Your task to perform on an android device: change the clock display to show seconds Image 0: 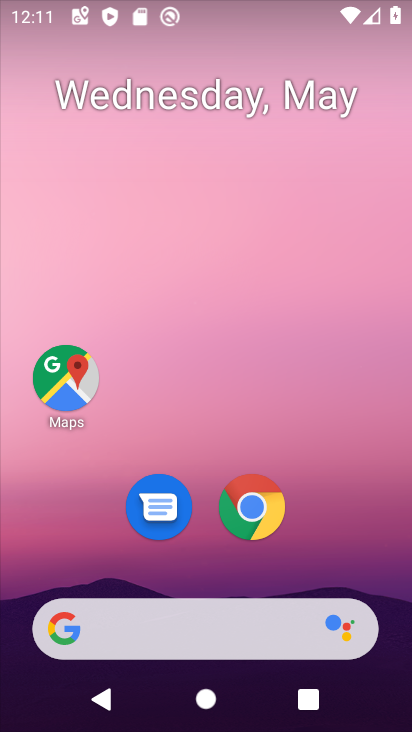
Step 0: drag from (297, 570) to (326, 160)
Your task to perform on an android device: change the clock display to show seconds Image 1: 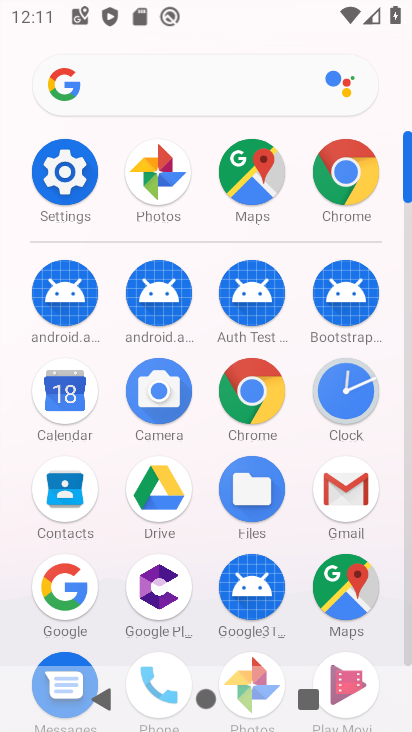
Step 1: click (342, 388)
Your task to perform on an android device: change the clock display to show seconds Image 2: 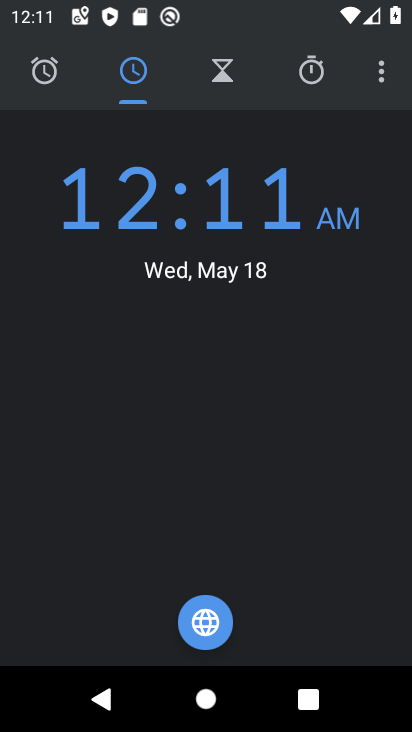
Step 2: click (368, 71)
Your task to perform on an android device: change the clock display to show seconds Image 3: 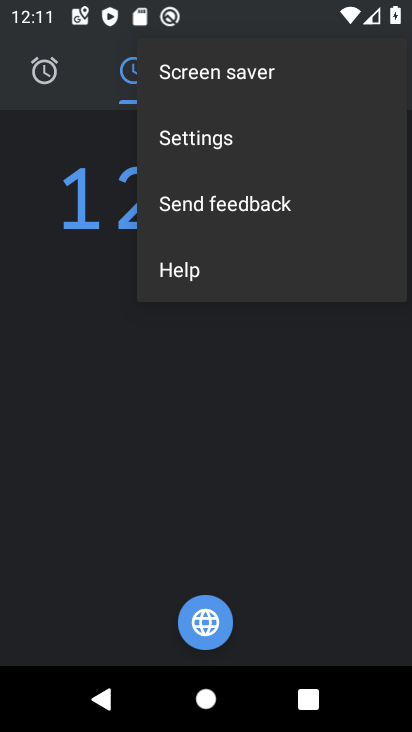
Step 3: click (245, 139)
Your task to perform on an android device: change the clock display to show seconds Image 4: 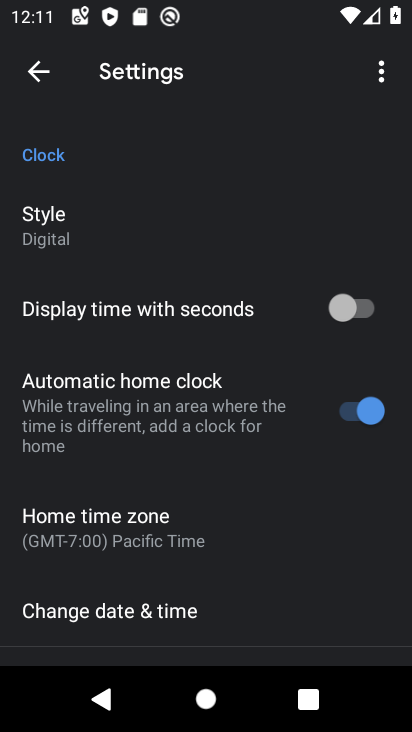
Step 4: drag from (206, 556) to (221, 431)
Your task to perform on an android device: change the clock display to show seconds Image 5: 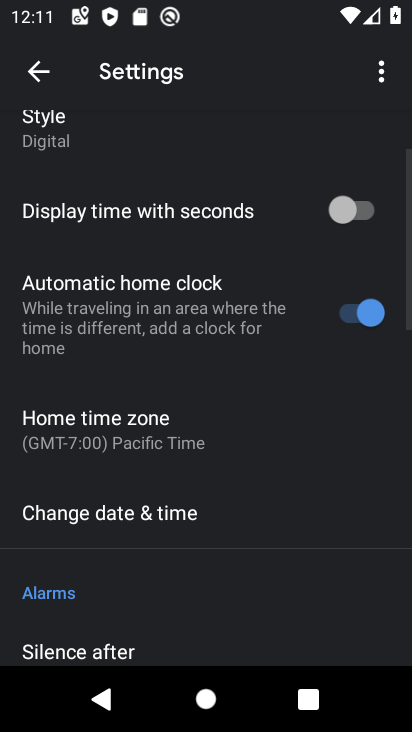
Step 5: click (352, 205)
Your task to perform on an android device: change the clock display to show seconds Image 6: 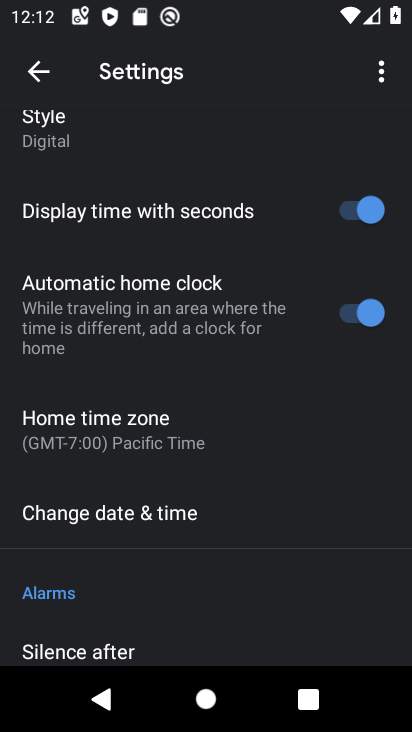
Step 6: task complete